Your task to perform on an android device: Go to battery settings Image 0: 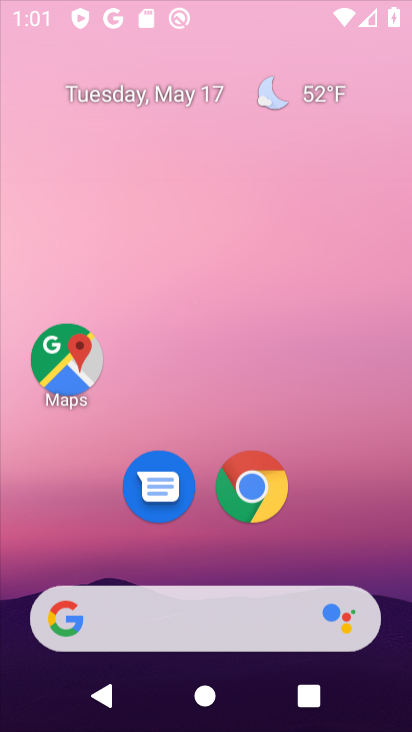
Step 0: press home button
Your task to perform on an android device: Go to battery settings Image 1: 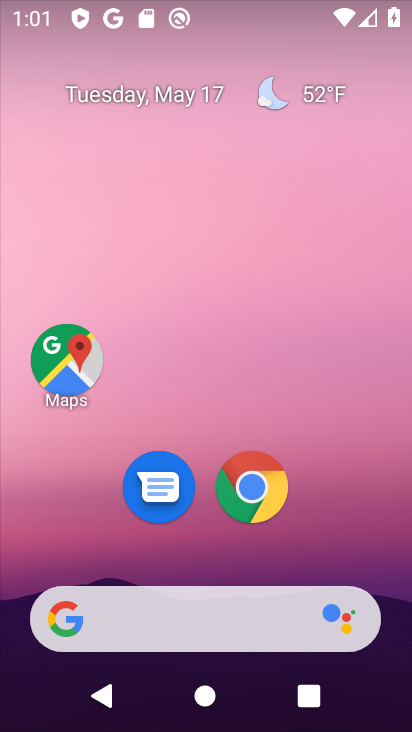
Step 1: drag from (376, 554) to (261, 47)
Your task to perform on an android device: Go to battery settings Image 2: 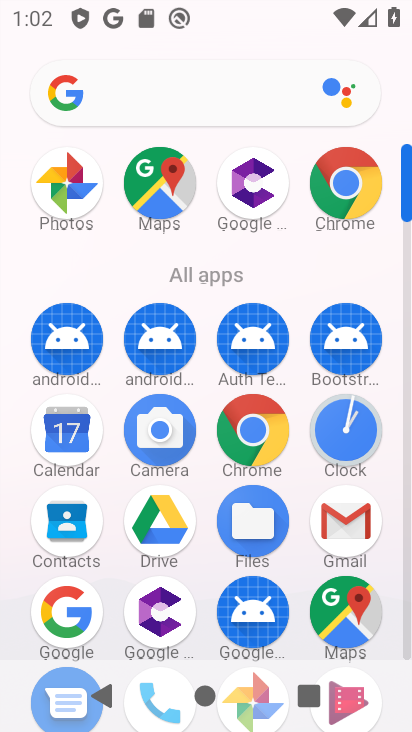
Step 2: click (410, 655)
Your task to perform on an android device: Go to battery settings Image 3: 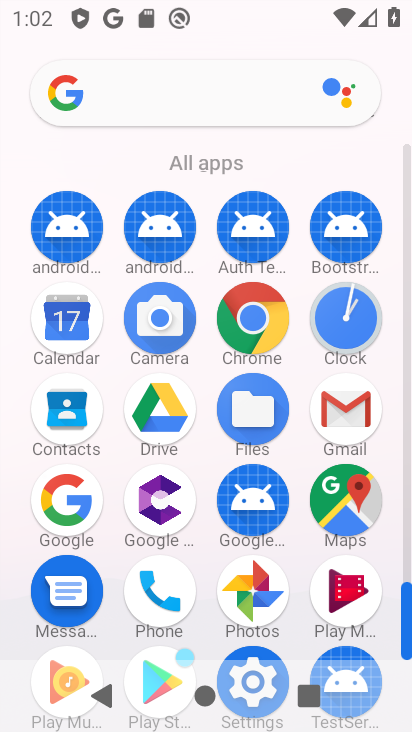
Step 3: click (245, 657)
Your task to perform on an android device: Go to battery settings Image 4: 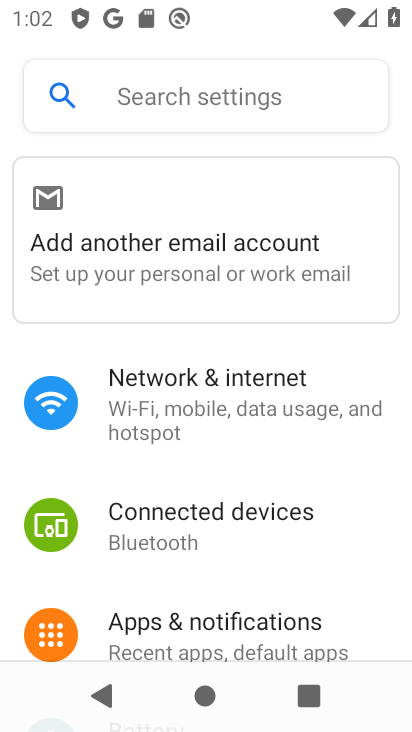
Step 4: drag from (89, 635) to (12, 366)
Your task to perform on an android device: Go to battery settings Image 5: 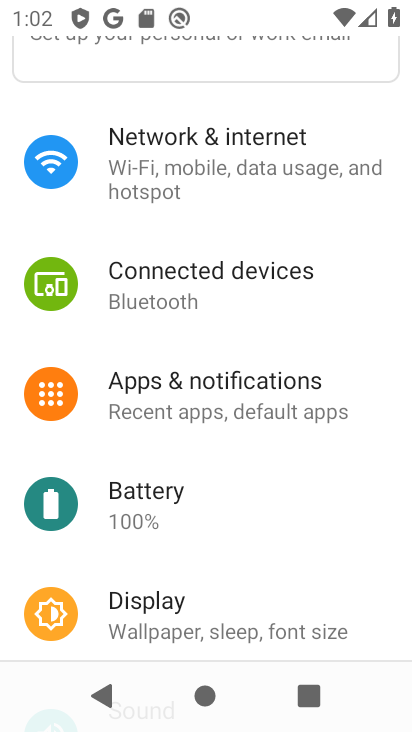
Step 5: click (124, 499)
Your task to perform on an android device: Go to battery settings Image 6: 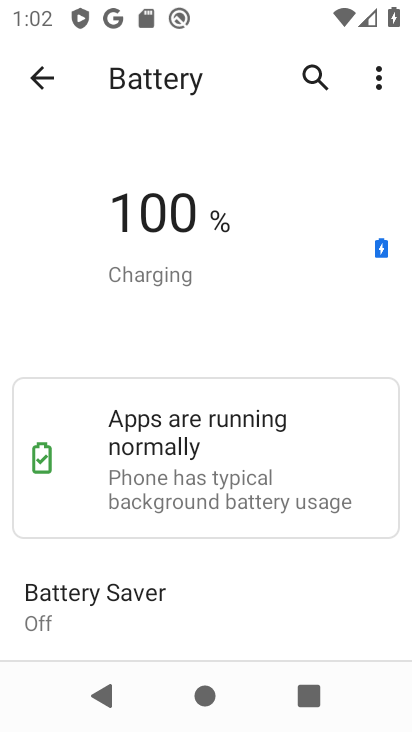
Step 6: task complete